Your task to perform on an android device: delete browsing data in the chrome app Image 0: 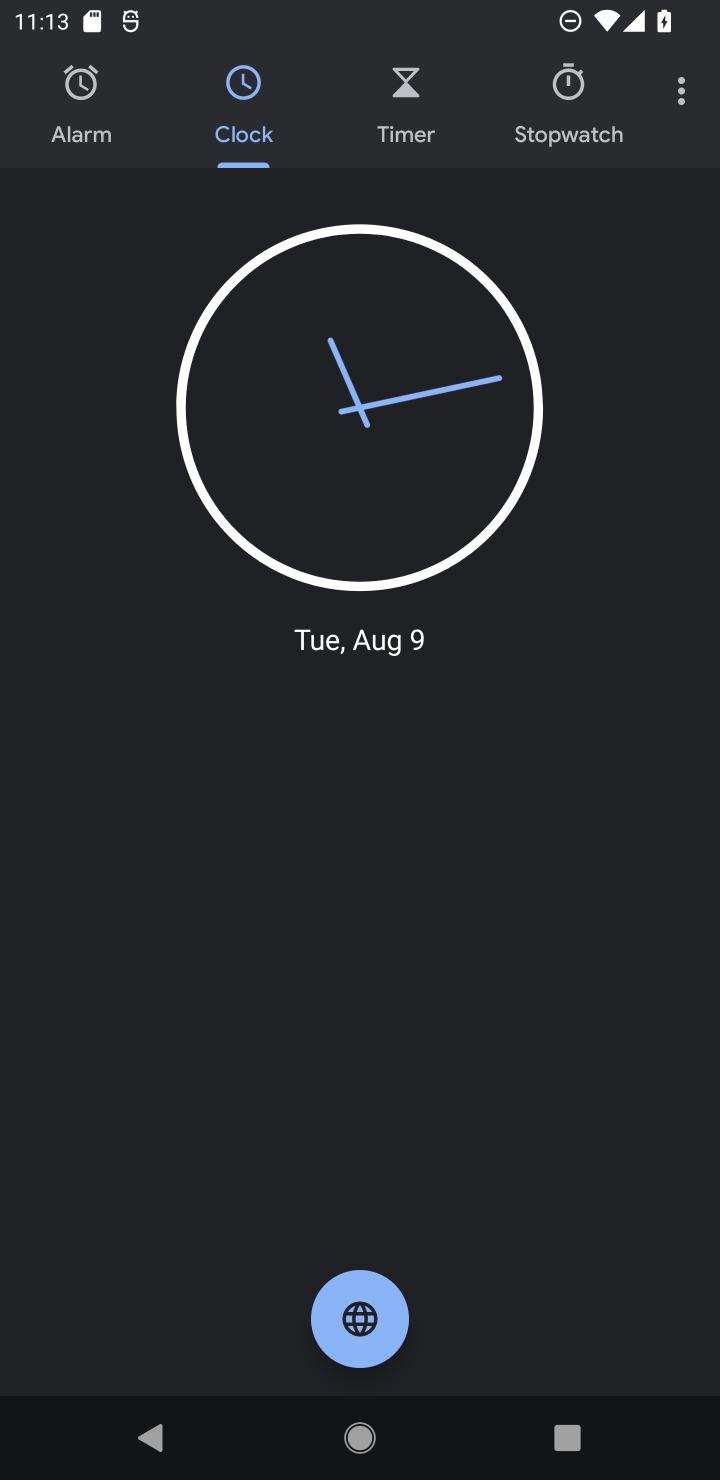
Step 0: press home button
Your task to perform on an android device: delete browsing data in the chrome app Image 1: 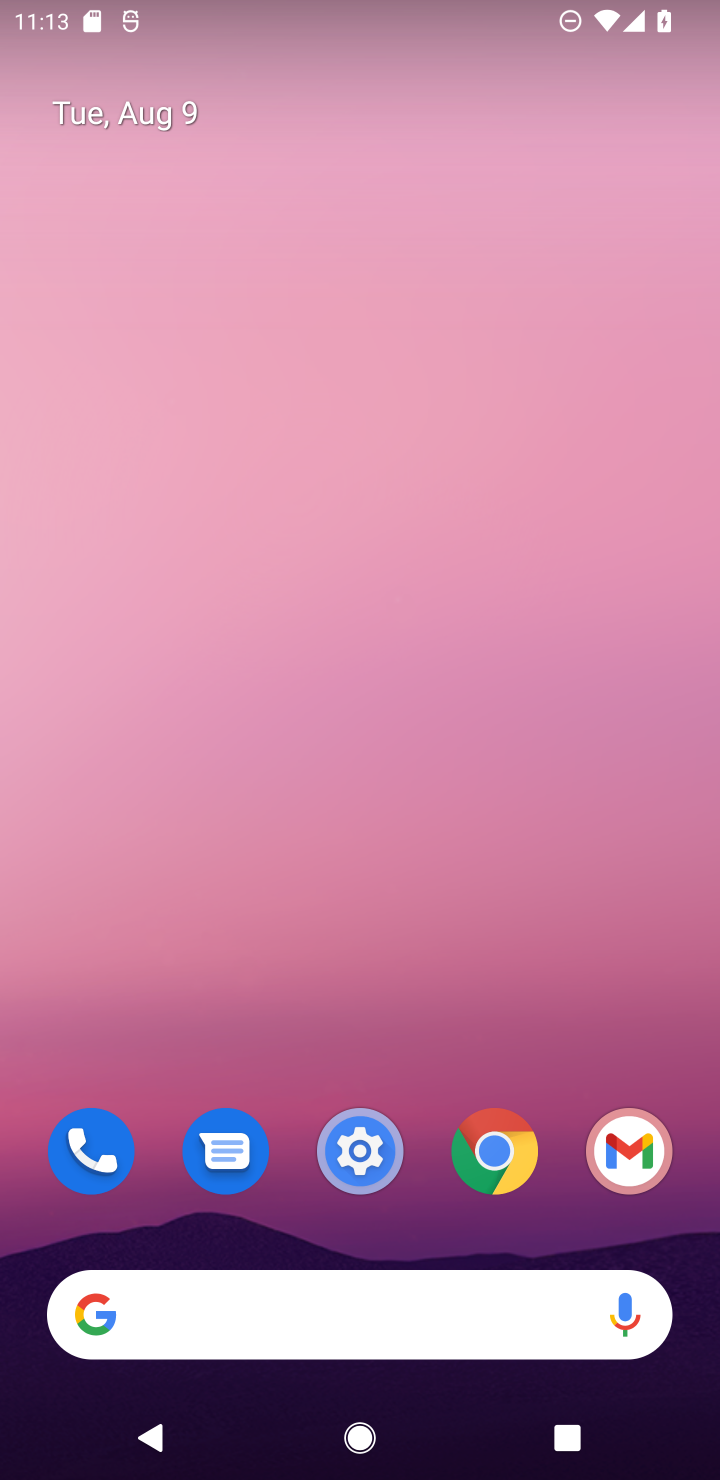
Step 1: click (471, 1167)
Your task to perform on an android device: delete browsing data in the chrome app Image 2: 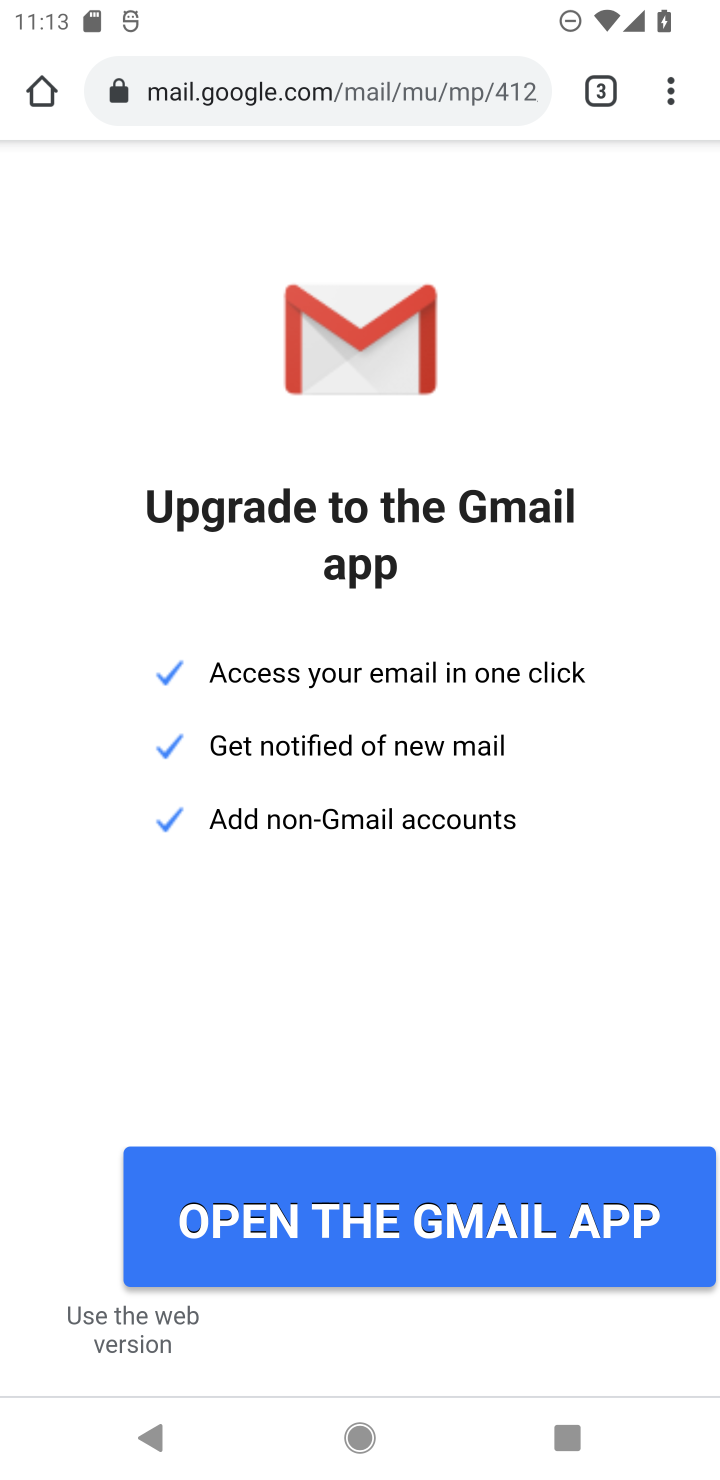
Step 2: click (658, 100)
Your task to perform on an android device: delete browsing data in the chrome app Image 3: 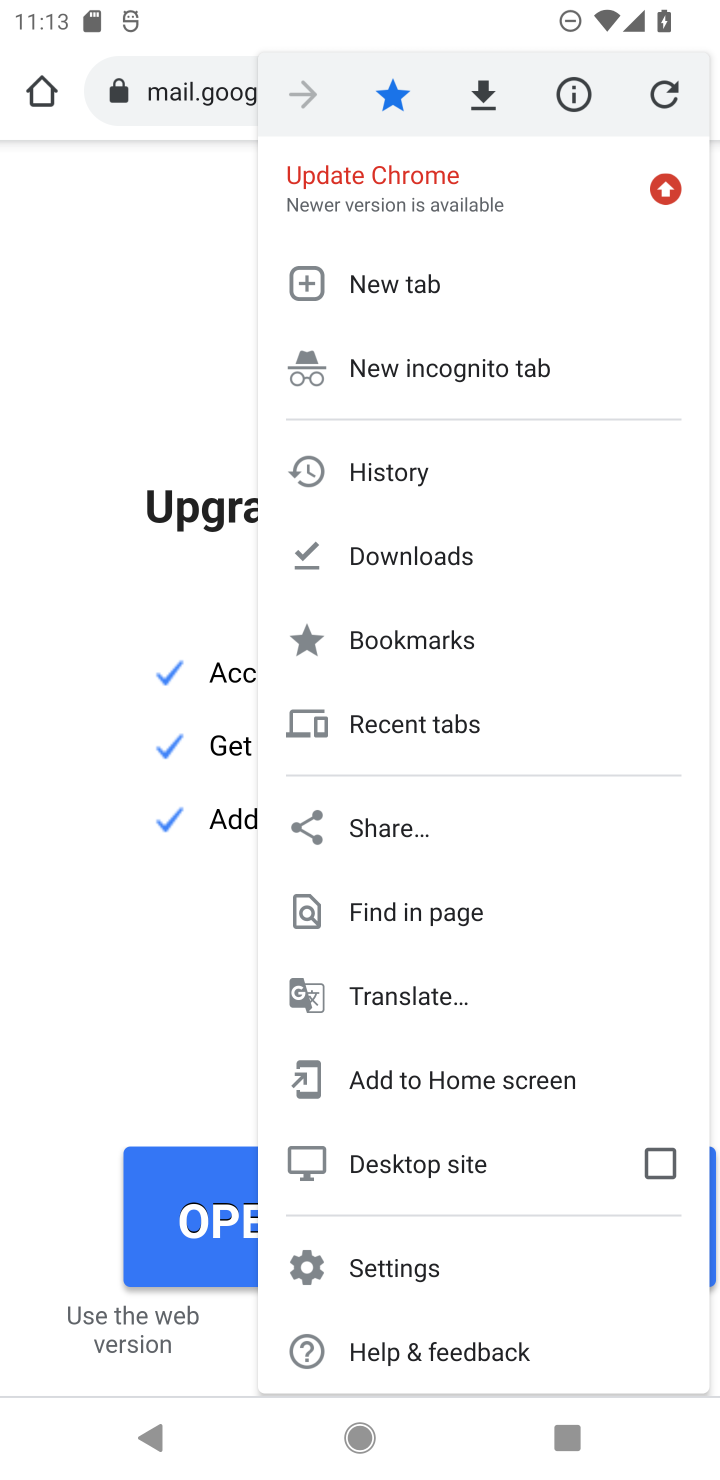
Step 3: click (361, 460)
Your task to perform on an android device: delete browsing data in the chrome app Image 4: 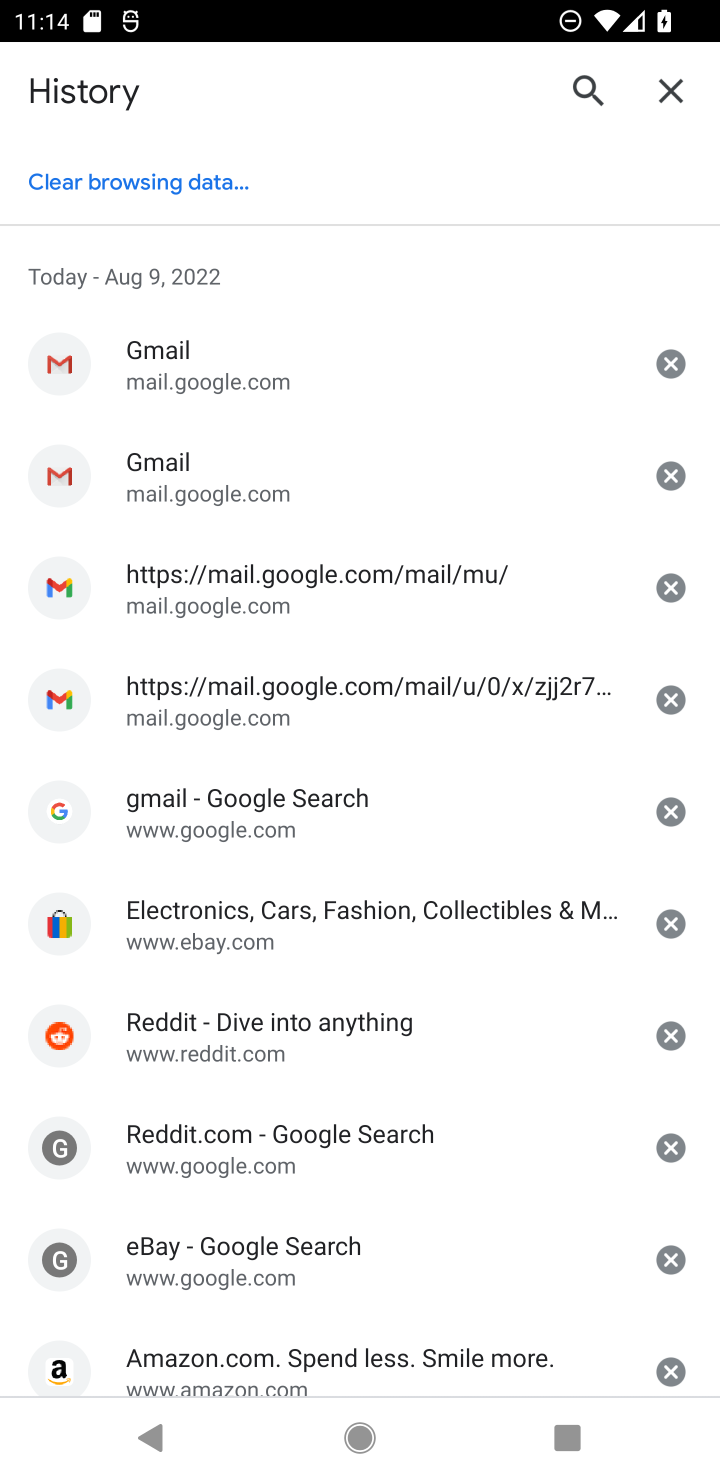
Step 4: click (95, 170)
Your task to perform on an android device: delete browsing data in the chrome app Image 5: 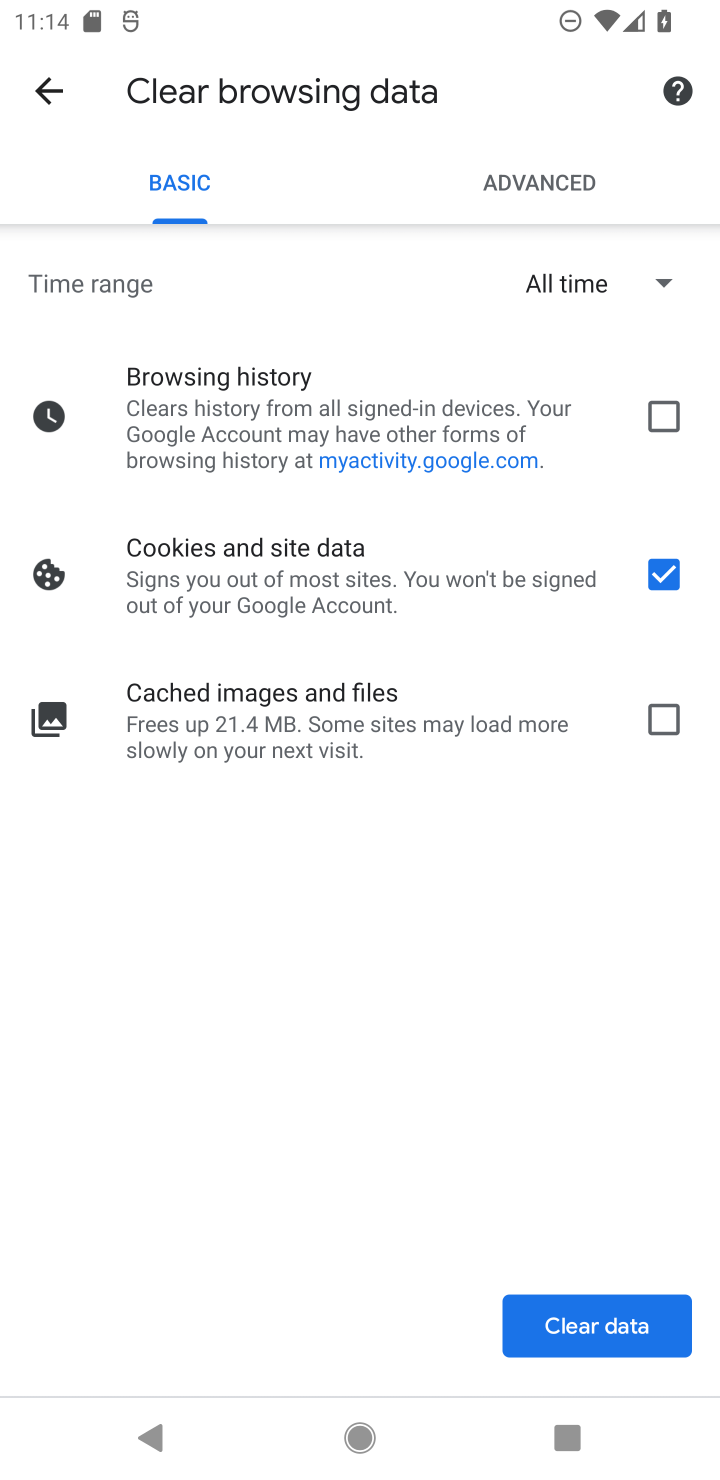
Step 5: click (599, 1328)
Your task to perform on an android device: delete browsing data in the chrome app Image 6: 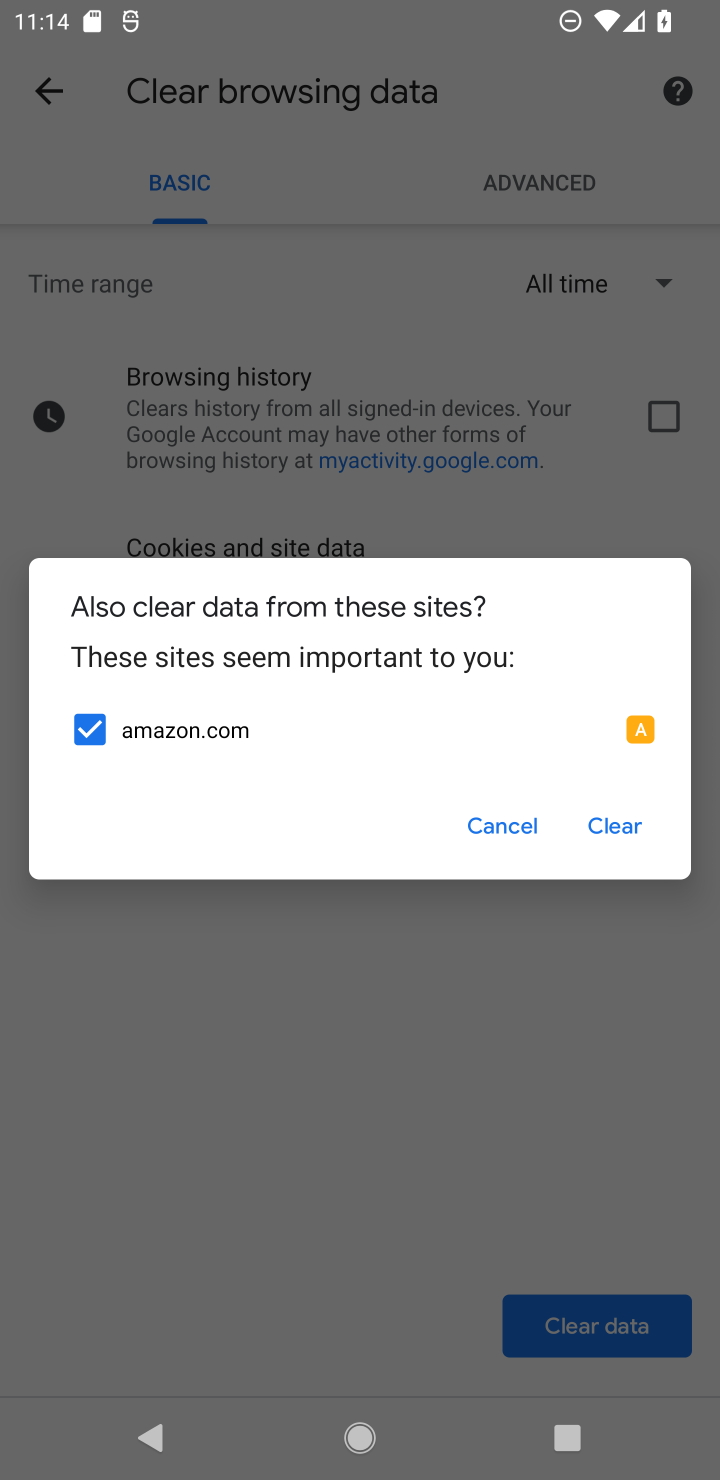
Step 6: click (605, 822)
Your task to perform on an android device: delete browsing data in the chrome app Image 7: 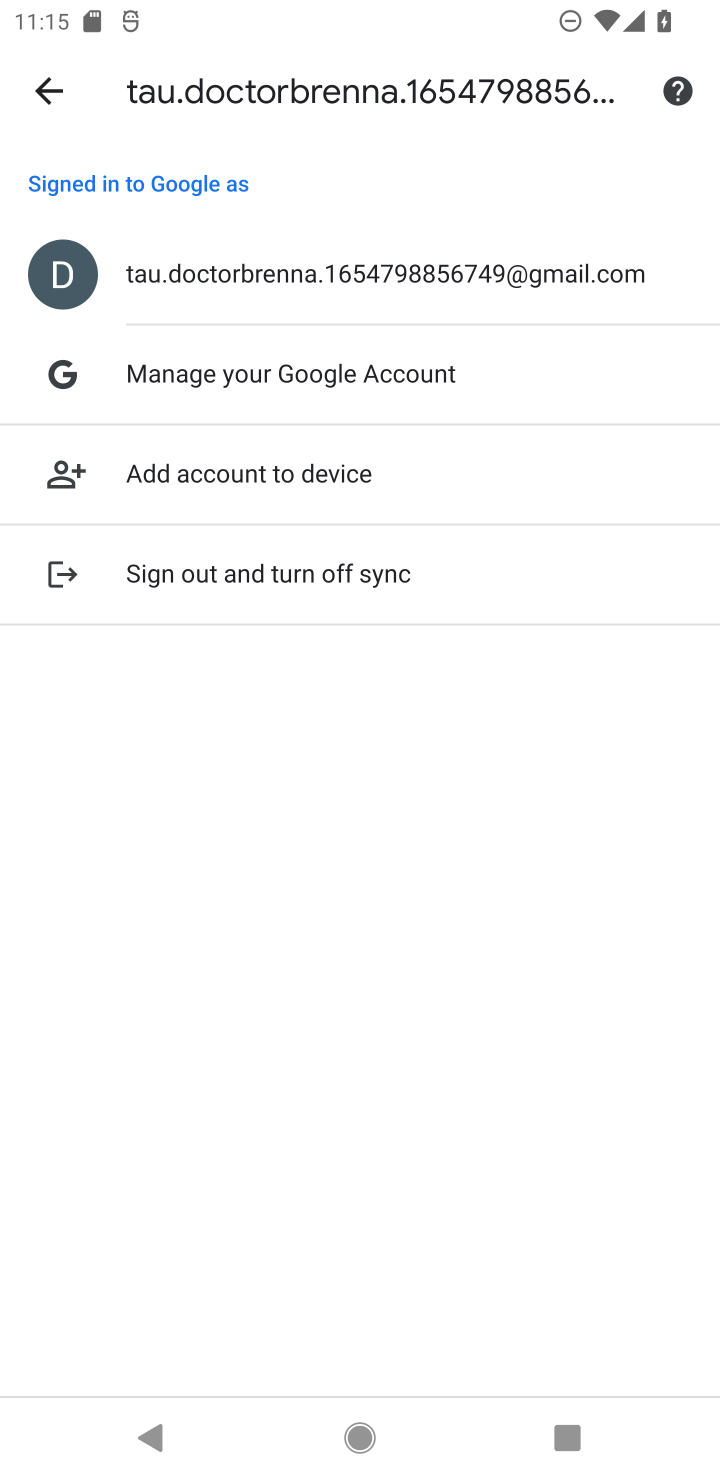
Step 7: task complete